Your task to perform on an android device: turn off priority inbox in the gmail app Image 0: 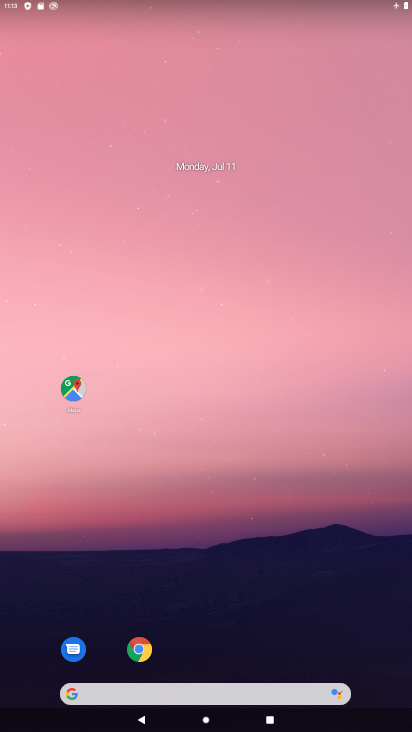
Step 0: drag from (268, 660) to (110, 113)
Your task to perform on an android device: turn off priority inbox in the gmail app Image 1: 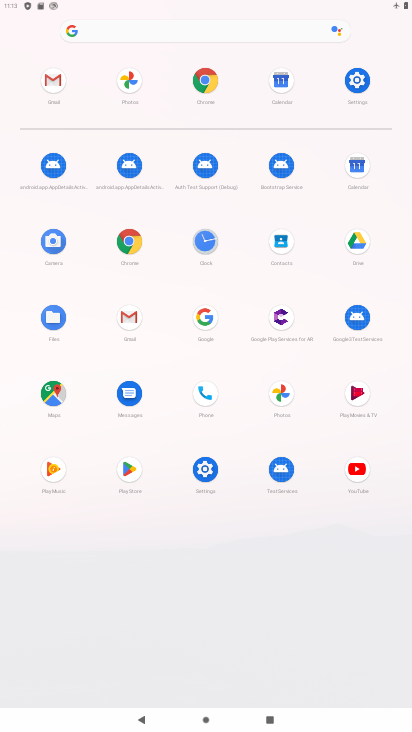
Step 1: click (53, 75)
Your task to perform on an android device: turn off priority inbox in the gmail app Image 2: 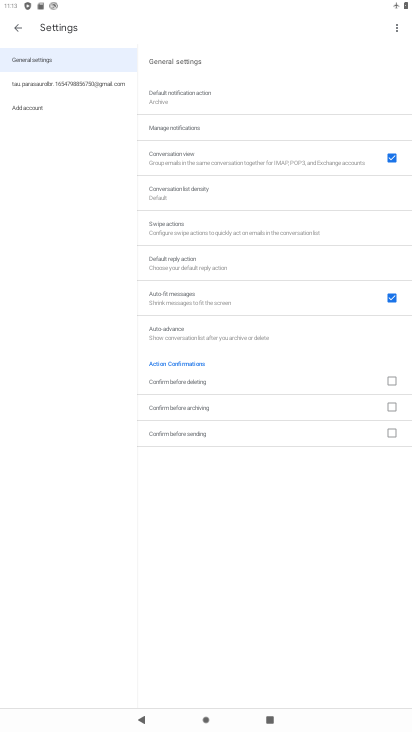
Step 2: click (71, 85)
Your task to perform on an android device: turn off priority inbox in the gmail app Image 3: 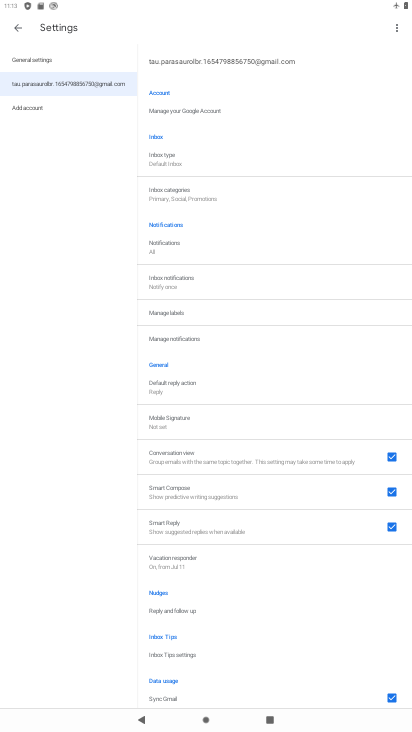
Step 3: click (167, 160)
Your task to perform on an android device: turn off priority inbox in the gmail app Image 4: 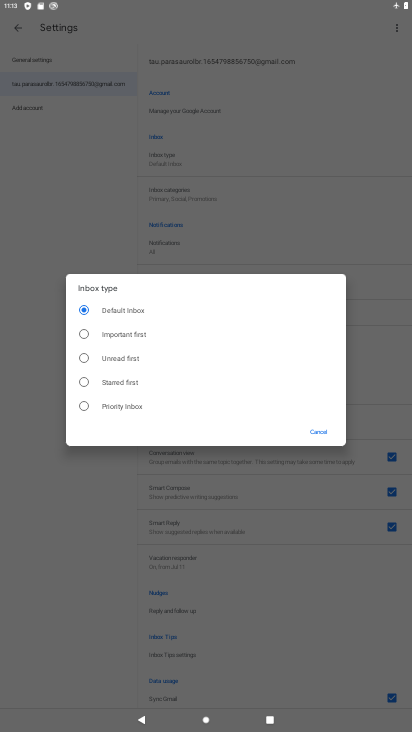
Step 4: task complete